Your task to perform on an android device: Open Wikipedia Image 0: 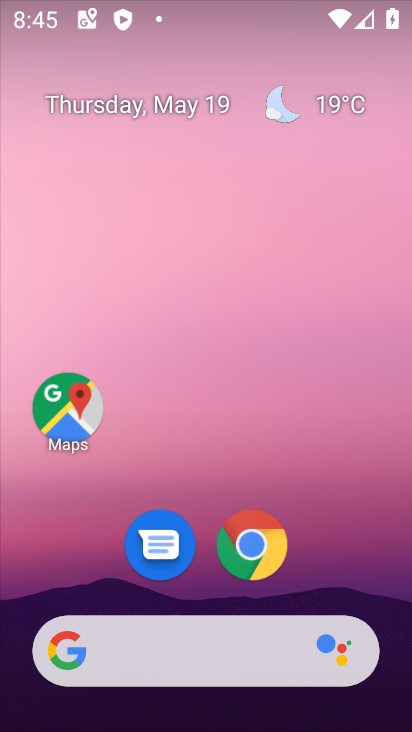
Step 0: click (275, 559)
Your task to perform on an android device: Open Wikipedia Image 1: 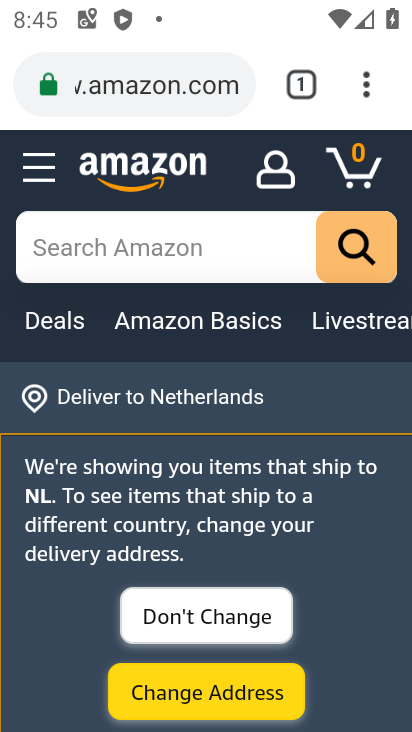
Step 1: click (224, 90)
Your task to perform on an android device: Open Wikipedia Image 2: 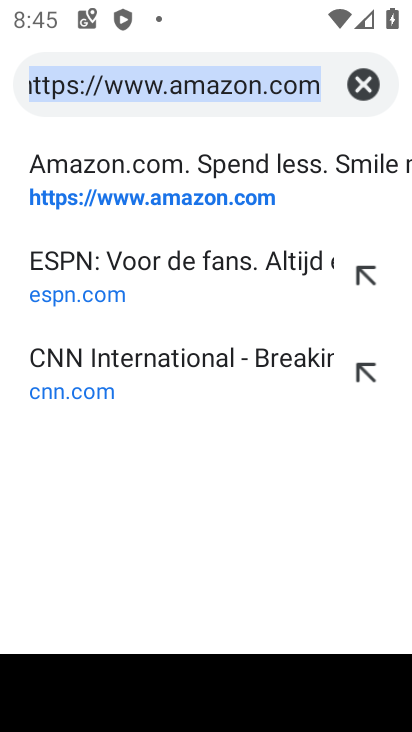
Step 2: type "wikipedia"
Your task to perform on an android device: Open Wikipedia Image 3: 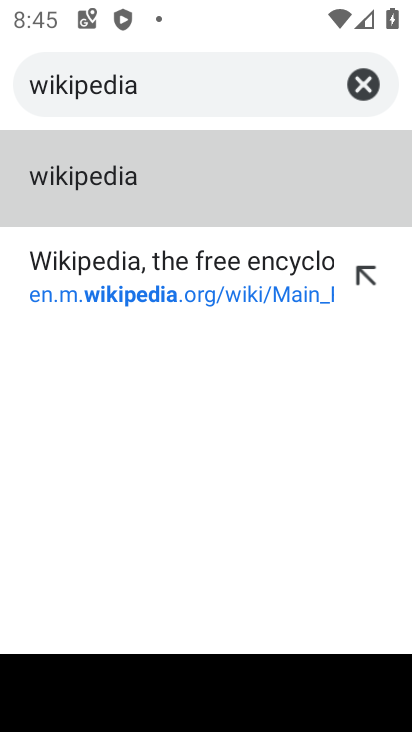
Step 3: click (293, 288)
Your task to perform on an android device: Open Wikipedia Image 4: 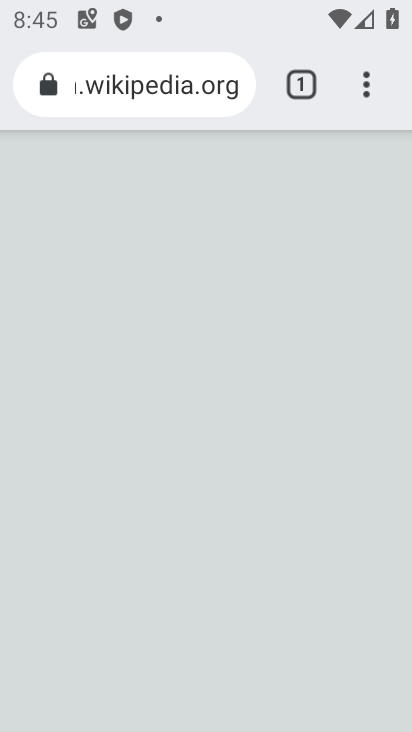
Step 4: task complete